Your task to perform on an android device: turn on improve location accuracy Image 0: 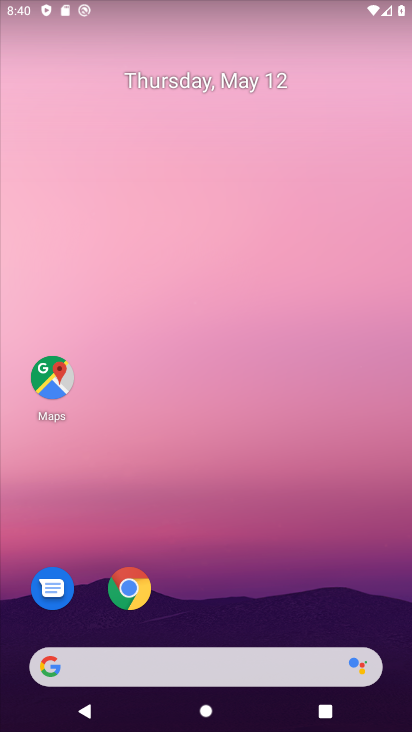
Step 0: drag from (268, 526) to (223, 260)
Your task to perform on an android device: turn on improve location accuracy Image 1: 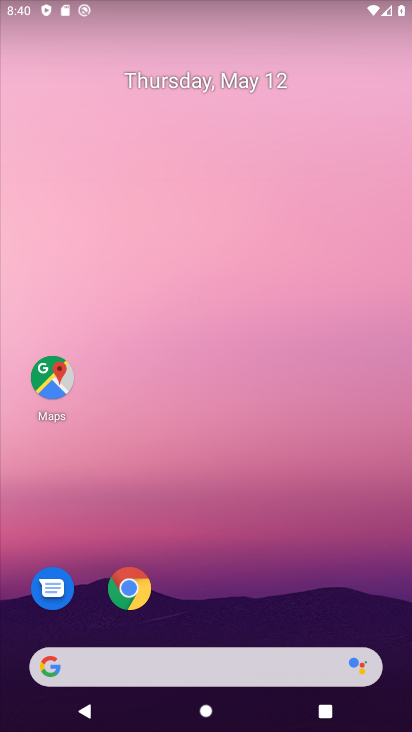
Step 1: drag from (251, 561) to (263, 0)
Your task to perform on an android device: turn on improve location accuracy Image 2: 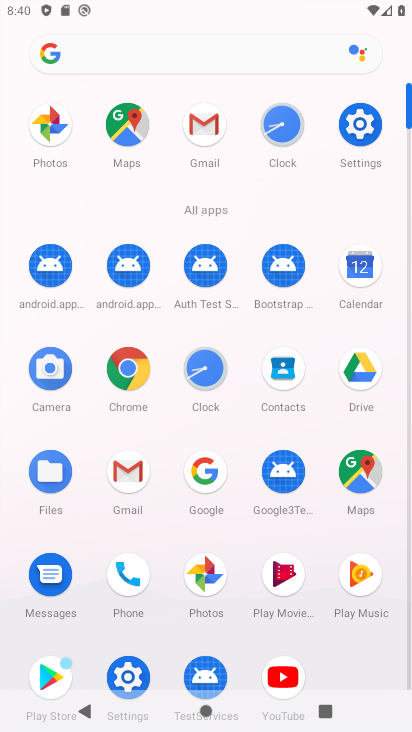
Step 2: click (117, 667)
Your task to perform on an android device: turn on improve location accuracy Image 3: 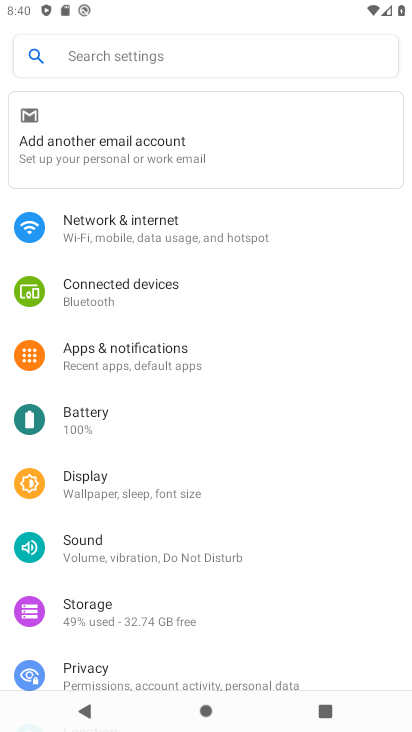
Step 3: drag from (217, 604) to (197, 334)
Your task to perform on an android device: turn on improve location accuracy Image 4: 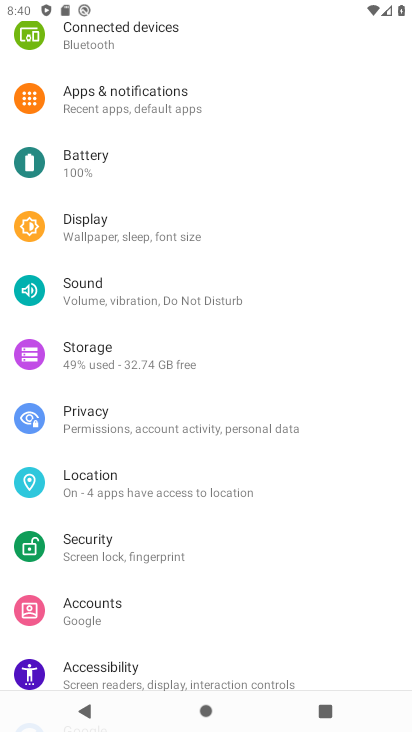
Step 4: click (218, 480)
Your task to perform on an android device: turn on improve location accuracy Image 5: 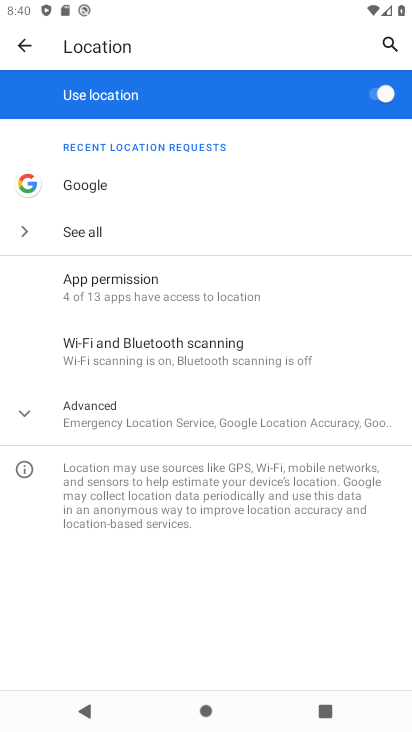
Step 5: click (218, 480)
Your task to perform on an android device: turn on improve location accuracy Image 6: 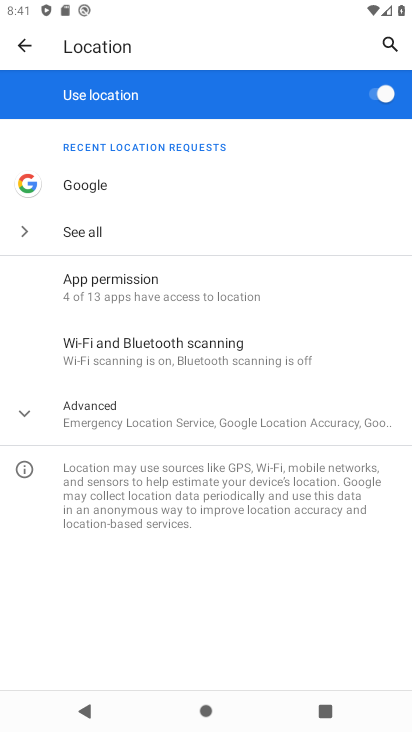
Step 6: click (229, 419)
Your task to perform on an android device: turn on improve location accuracy Image 7: 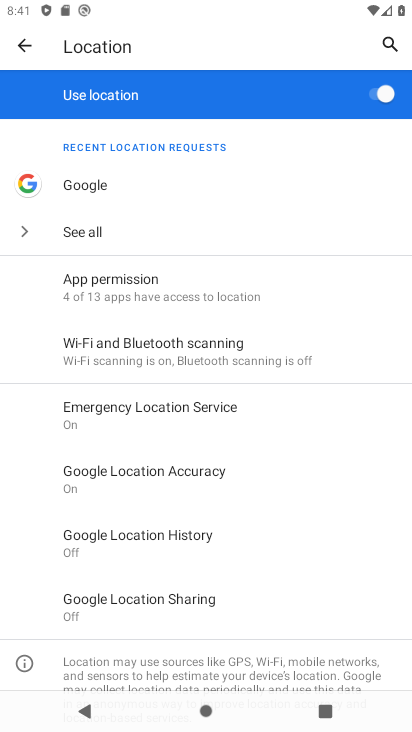
Step 7: click (233, 480)
Your task to perform on an android device: turn on improve location accuracy Image 8: 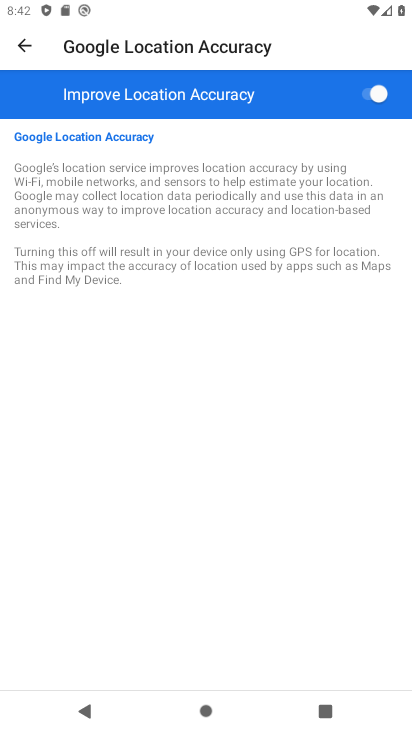
Step 8: task complete